Your task to perform on an android device: toggle translation in the chrome app Image 0: 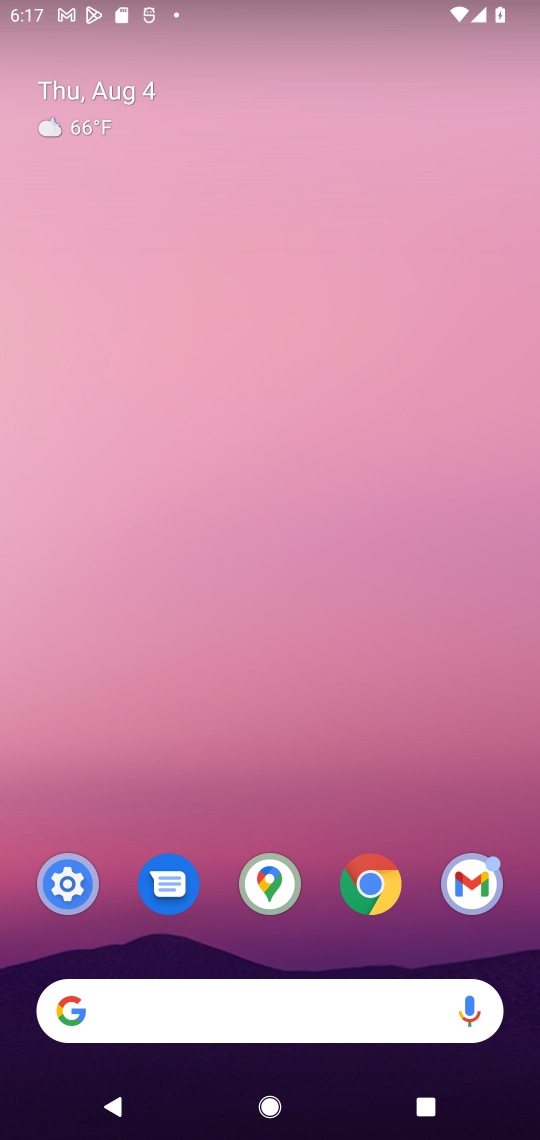
Step 0: click (388, 903)
Your task to perform on an android device: toggle translation in the chrome app Image 1: 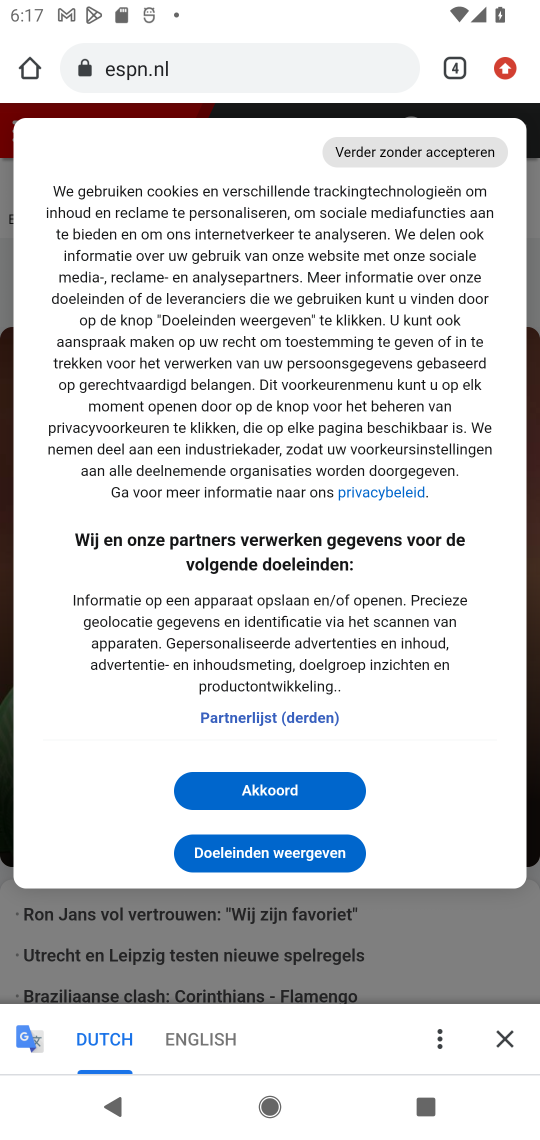
Step 1: click (497, 85)
Your task to perform on an android device: toggle translation in the chrome app Image 2: 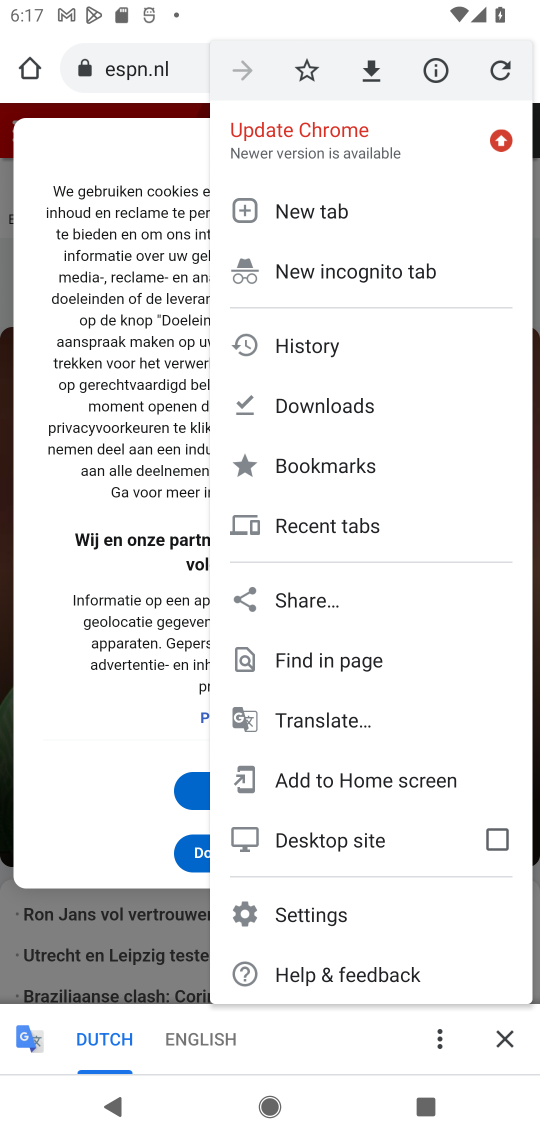
Step 2: click (299, 904)
Your task to perform on an android device: toggle translation in the chrome app Image 3: 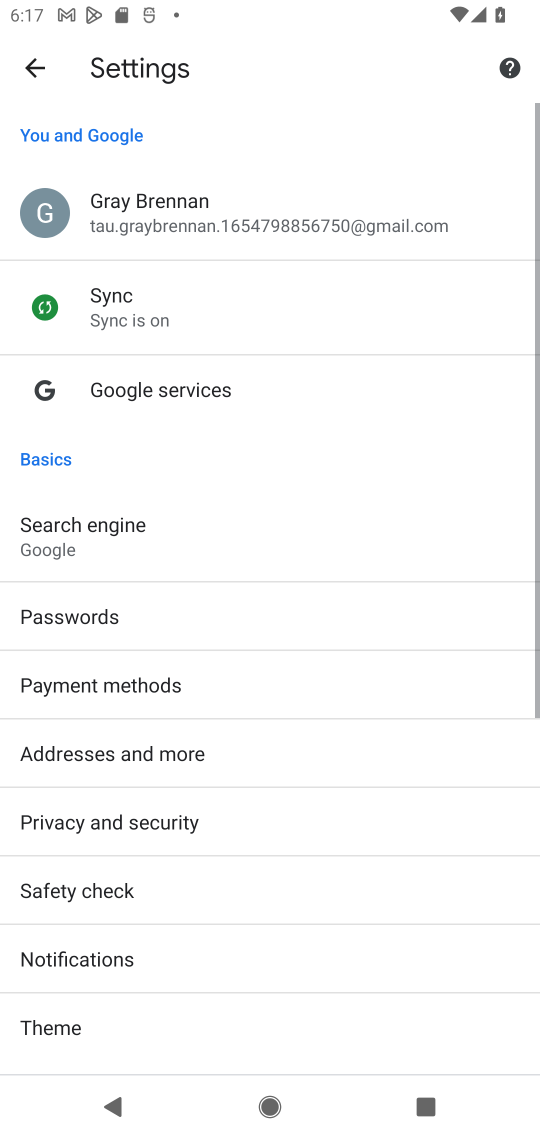
Step 3: drag from (288, 1005) to (318, 354)
Your task to perform on an android device: toggle translation in the chrome app Image 4: 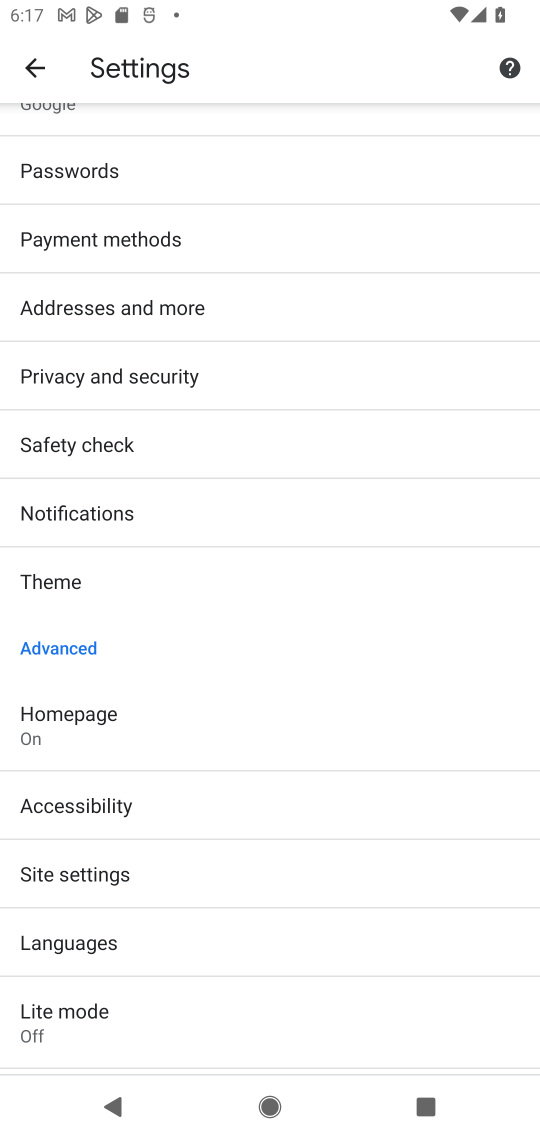
Step 4: click (182, 880)
Your task to perform on an android device: toggle translation in the chrome app Image 5: 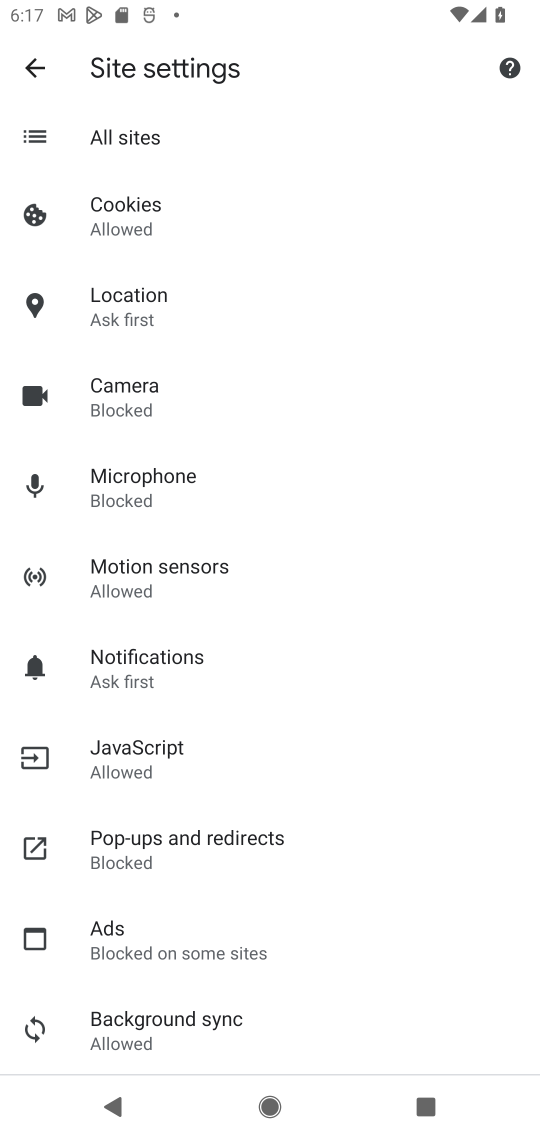
Step 5: task complete